Your task to perform on an android device: turn off javascript in the chrome app Image 0: 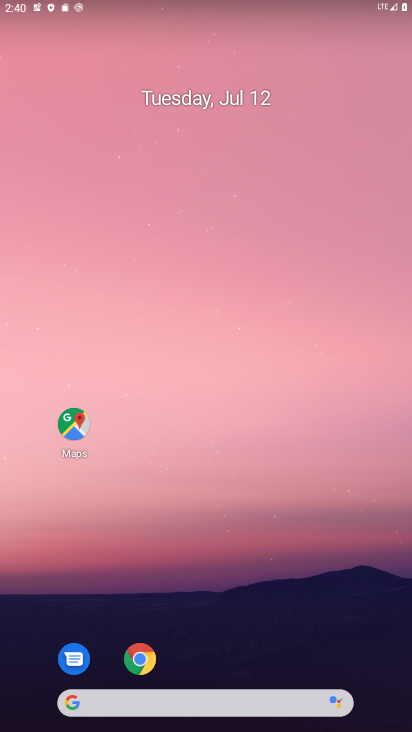
Step 0: click (141, 656)
Your task to perform on an android device: turn off javascript in the chrome app Image 1: 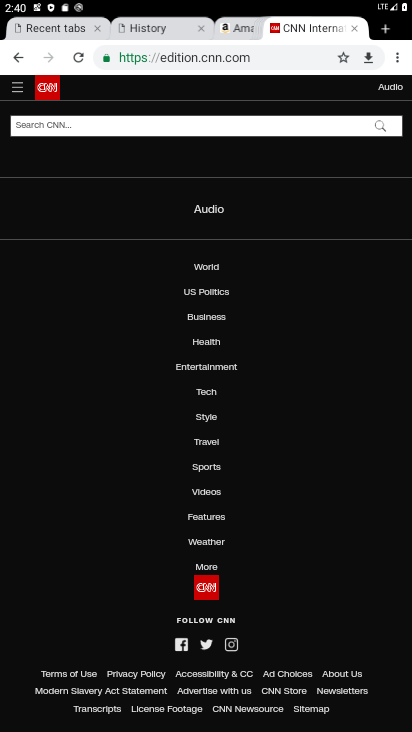
Step 1: click (397, 61)
Your task to perform on an android device: turn off javascript in the chrome app Image 2: 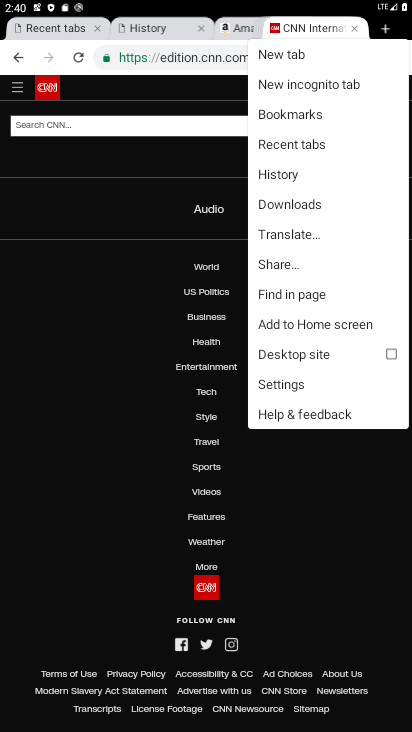
Step 2: click (283, 382)
Your task to perform on an android device: turn off javascript in the chrome app Image 3: 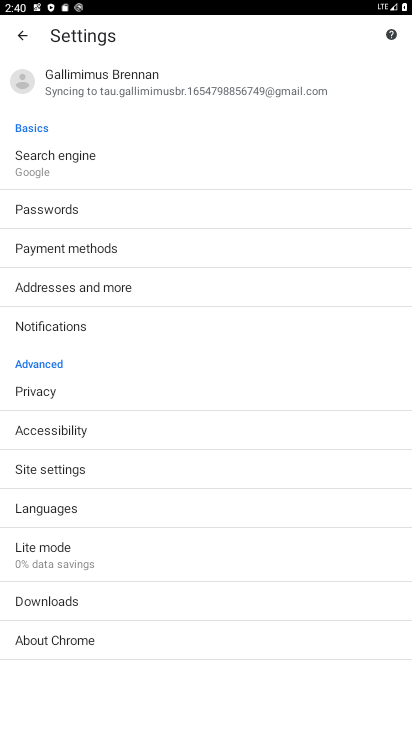
Step 3: click (58, 473)
Your task to perform on an android device: turn off javascript in the chrome app Image 4: 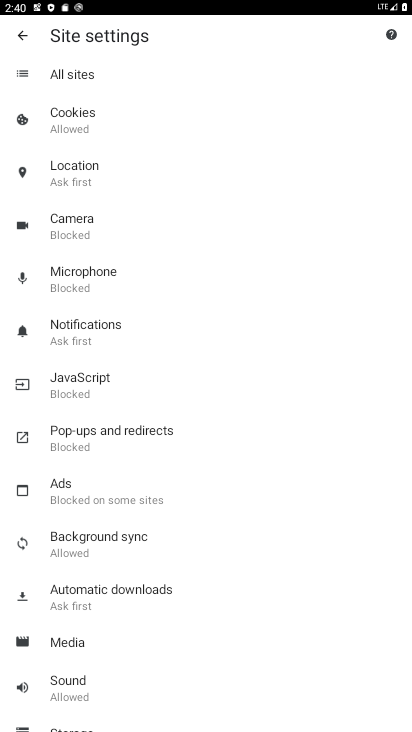
Step 4: click (78, 385)
Your task to perform on an android device: turn off javascript in the chrome app Image 5: 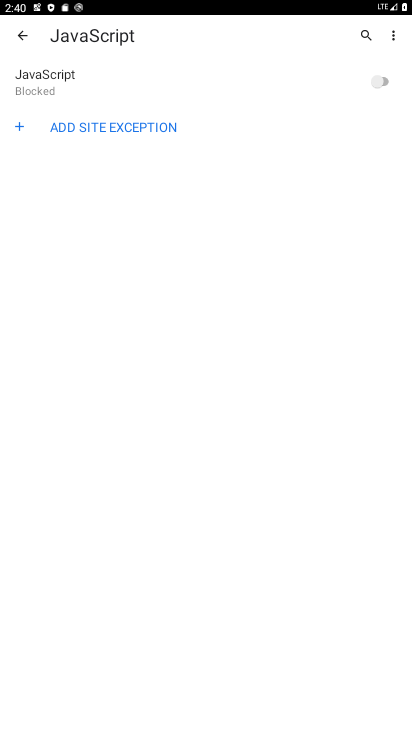
Step 5: task complete